Your task to perform on an android device: Go to Google maps Image 0: 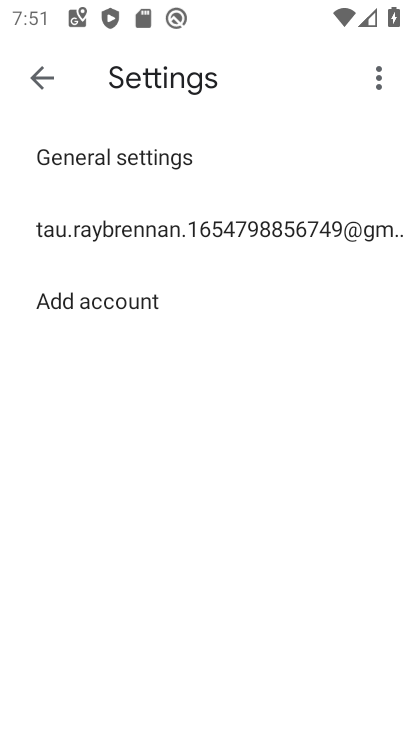
Step 0: drag from (237, 689) to (255, 96)
Your task to perform on an android device: Go to Google maps Image 1: 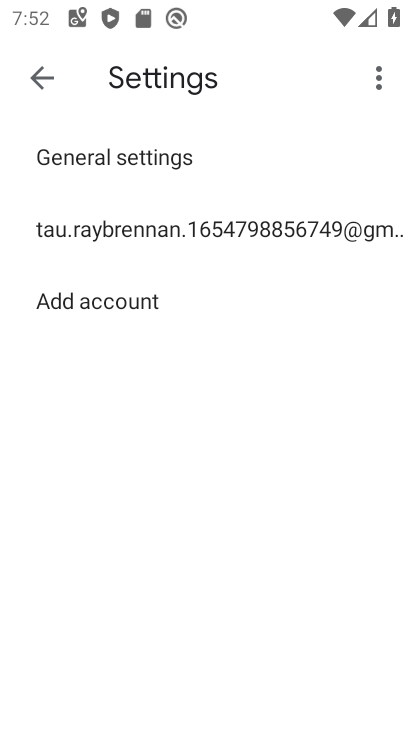
Step 1: press home button
Your task to perform on an android device: Go to Google maps Image 2: 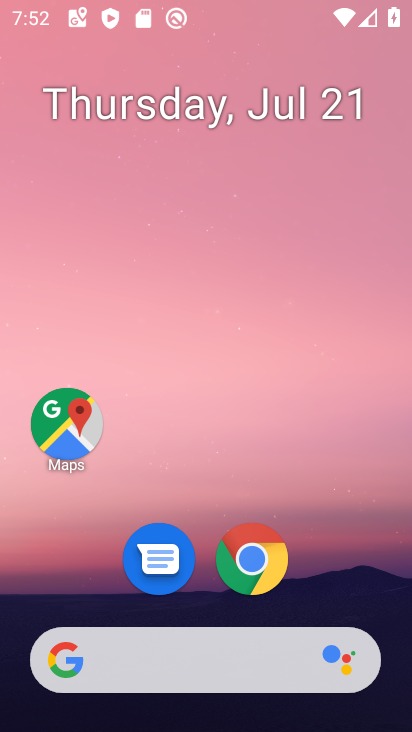
Step 2: drag from (260, 598) to (269, 0)
Your task to perform on an android device: Go to Google maps Image 3: 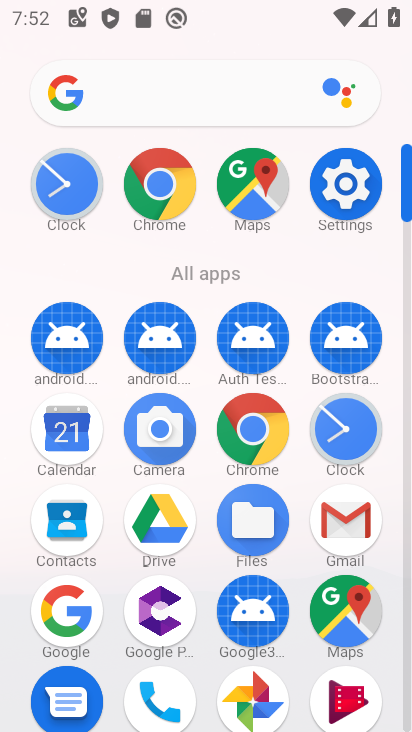
Step 3: click (258, 189)
Your task to perform on an android device: Go to Google maps Image 4: 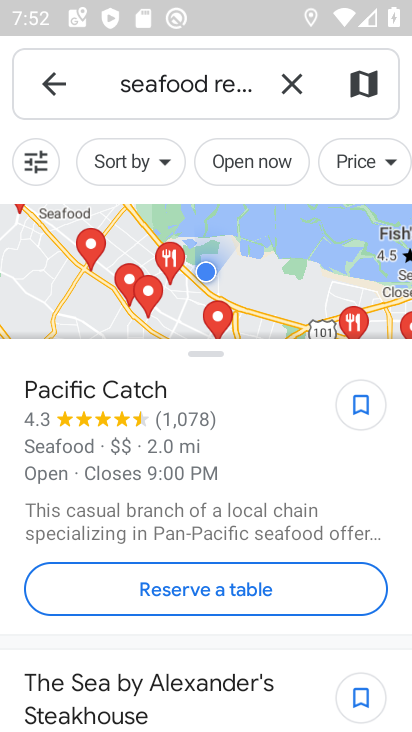
Step 4: task complete